Your task to perform on an android device: Open maps Image 0: 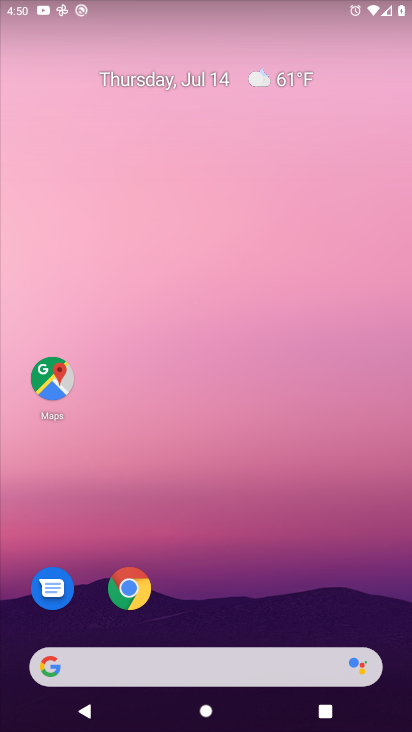
Step 0: press home button
Your task to perform on an android device: Open maps Image 1: 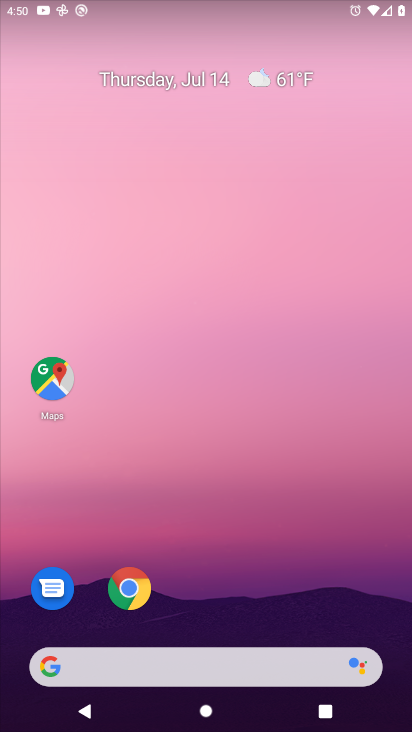
Step 1: drag from (227, 628) to (146, 211)
Your task to perform on an android device: Open maps Image 2: 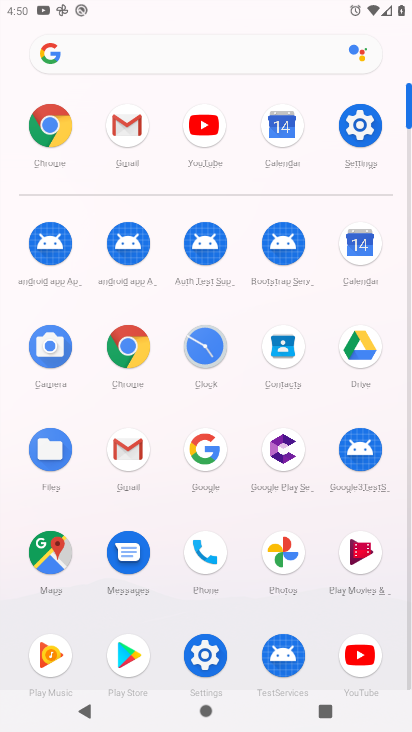
Step 2: click (53, 551)
Your task to perform on an android device: Open maps Image 3: 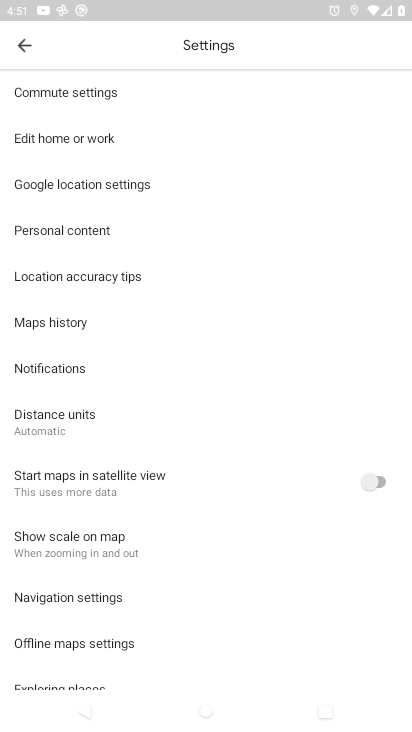
Step 3: task complete